Your task to perform on an android device: add a contact Image 0: 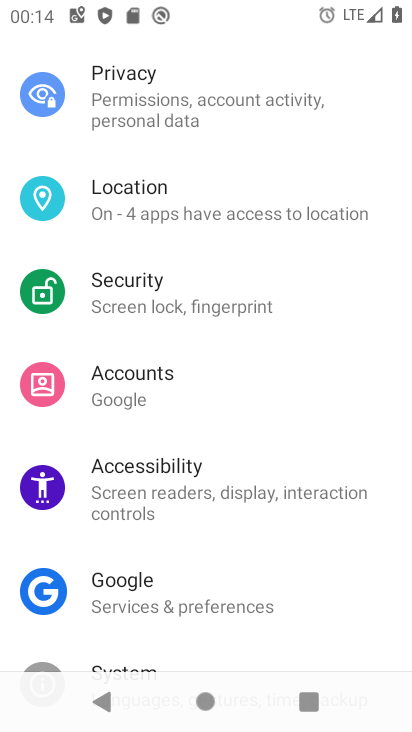
Step 0: press home button
Your task to perform on an android device: add a contact Image 1: 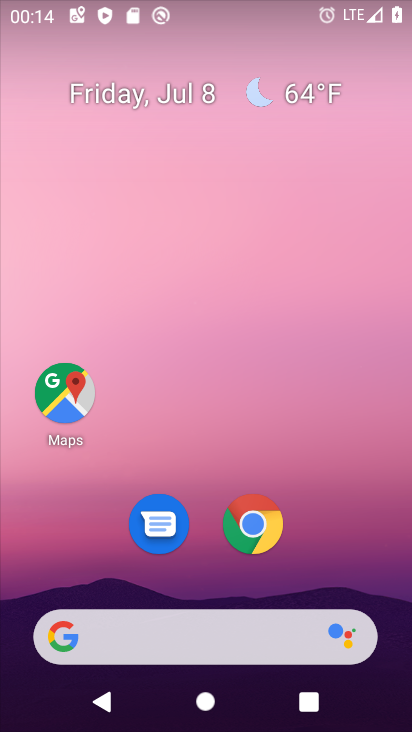
Step 1: drag from (323, 589) to (284, 51)
Your task to perform on an android device: add a contact Image 2: 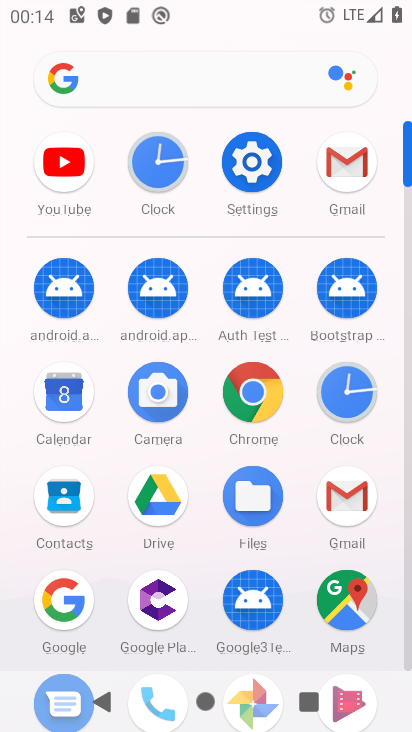
Step 2: click (73, 496)
Your task to perform on an android device: add a contact Image 3: 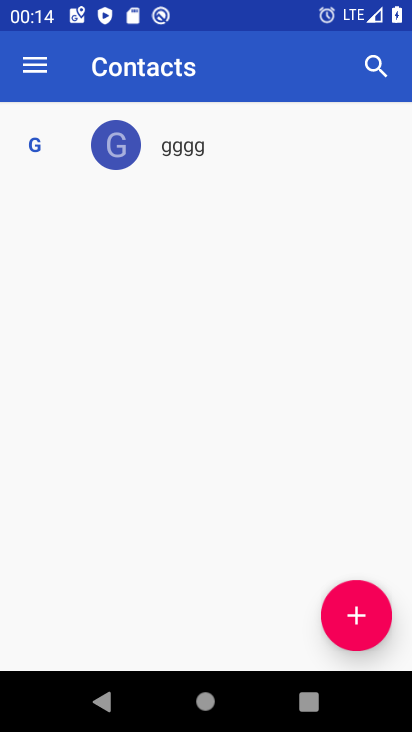
Step 3: click (348, 583)
Your task to perform on an android device: add a contact Image 4: 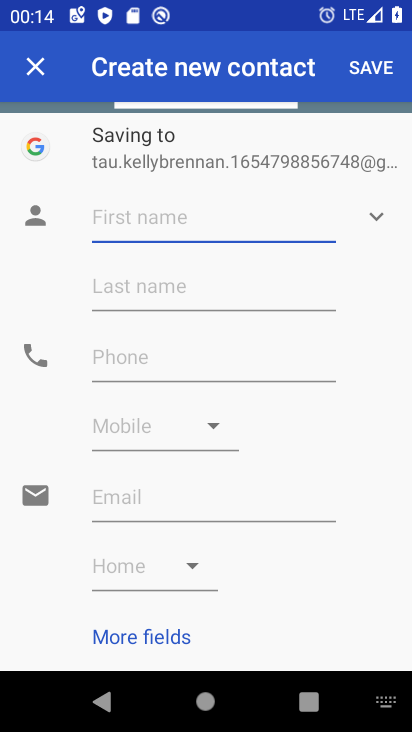
Step 4: type ""
Your task to perform on an android device: add a contact Image 5: 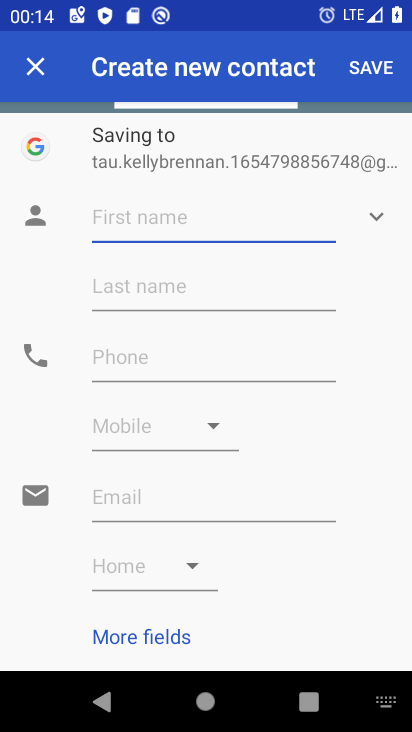
Step 5: type ""
Your task to perform on an android device: add a contact Image 6: 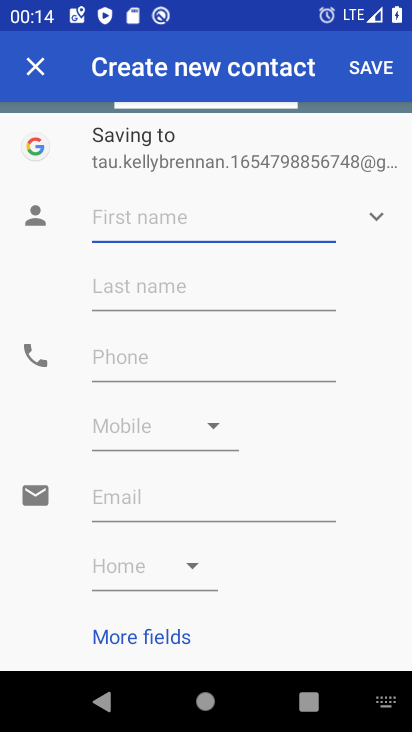
Step 6: type "Jai Shri Ram"
Your task to perform on an android device: add a contact Image 7: 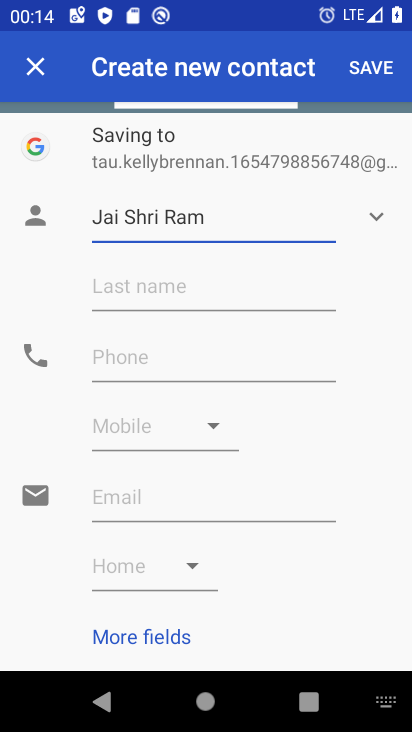
Step 7: click (238, 364)
Your task to perform on an android device: add a contact Image 8: 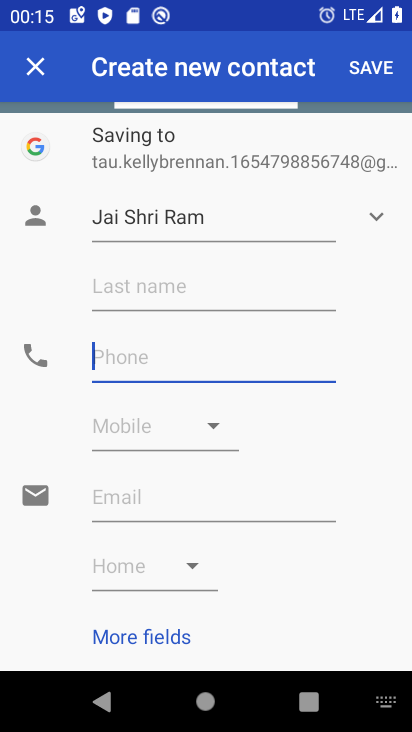
Step 8: type "999999999"
Your task to perform on an android device: add a contact Image 9: 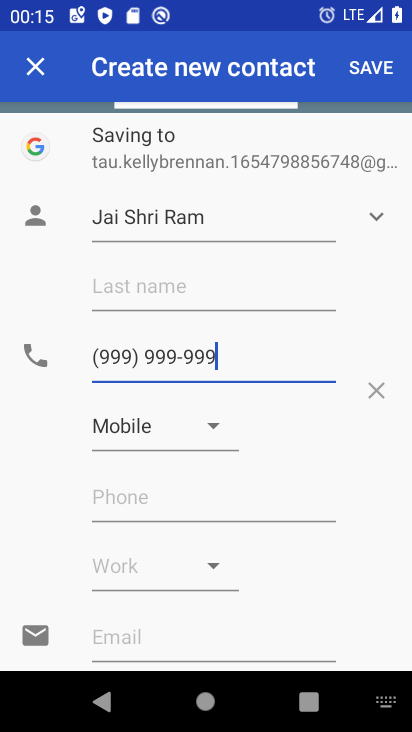
Step 9: type "9"
Your task to perform on an android device: add a contact Image 10: 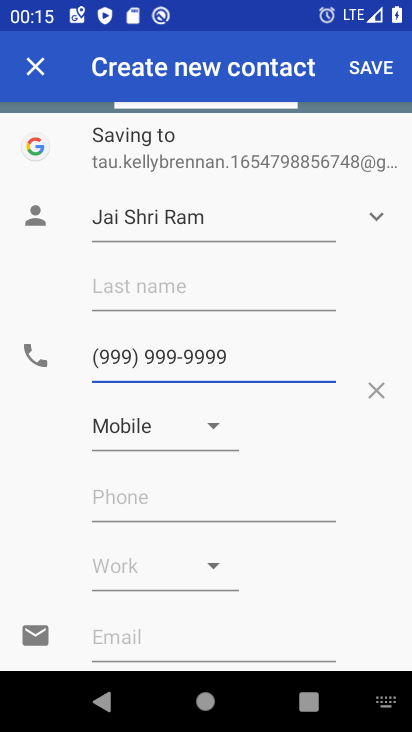
Step 10: click (365, 67)
Your task to perform on an android device: add a contact Image 11: 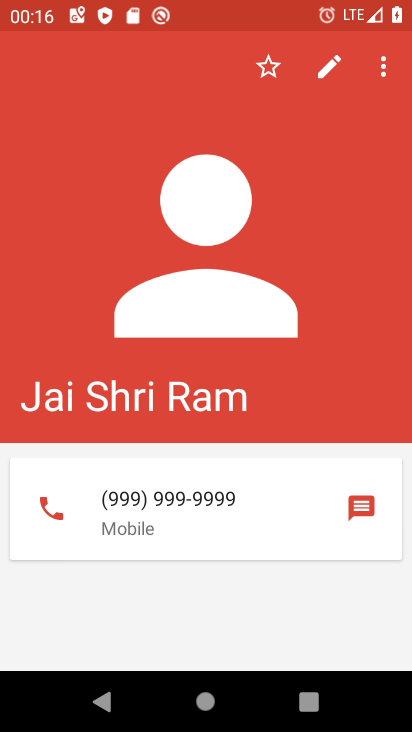
Step 11: task complete